Your task to perform on an android device: Show me productivity apps on the Play Store Image 0: 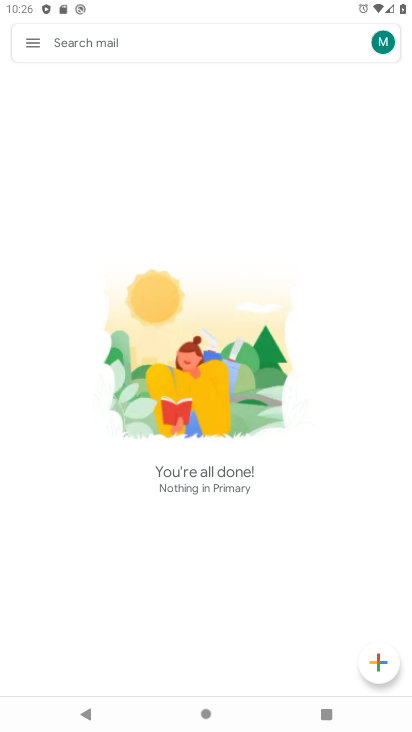
Step 0: press home button
Your task to perform on an android device: Show me productivity apps on the Play Store Image 1: 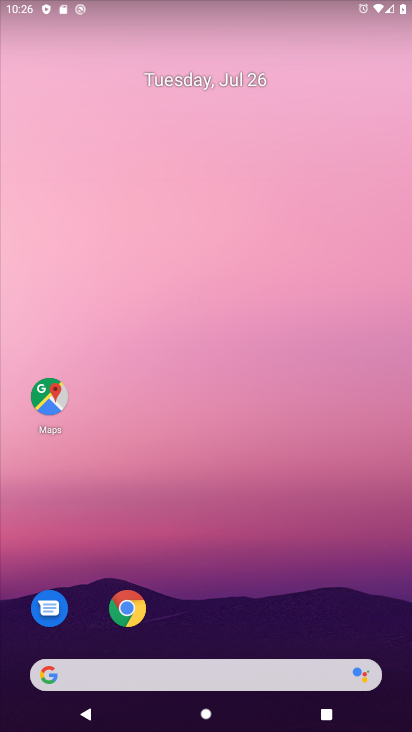
Step 1: drag from (242, 727) to (279, 125)
Your task to perform on an android device: Show me productivity apps on the Play Store Image 2: 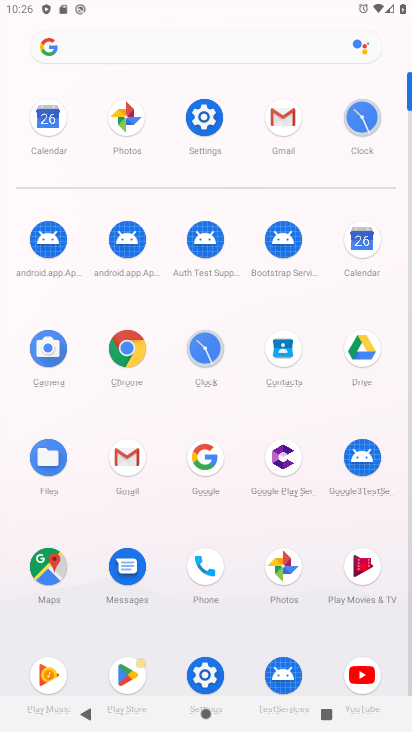
Step 2: click (125, 666)
Your task to perform on an android device: Show me productivity apps on the Play Store Image 3: 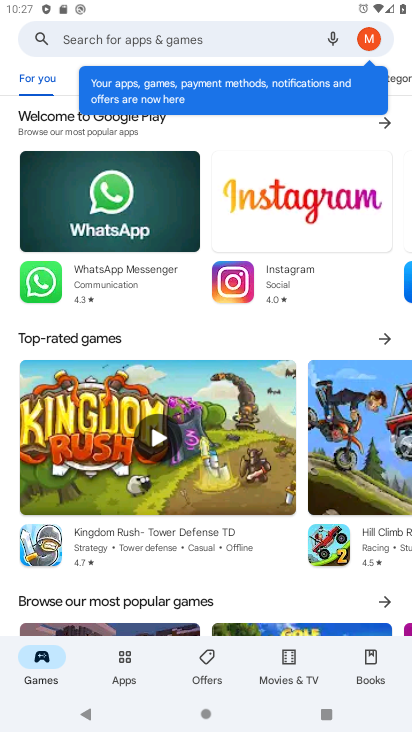
Step 3: click (117, 668)
Your task to perform on an android device: Show me productivity apps on the Play Store Image 4: 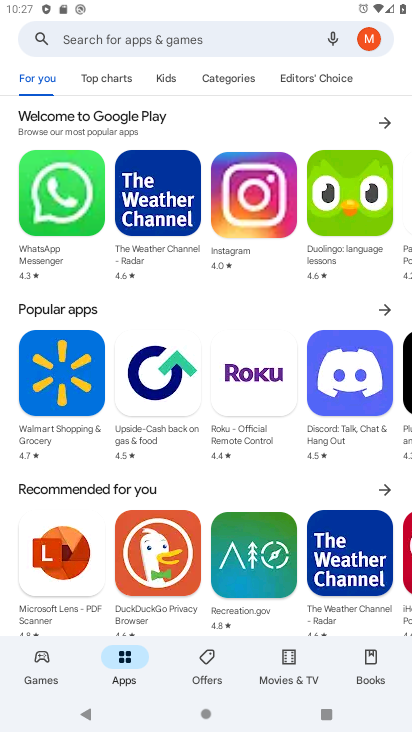
Step 4: click (128, 654)
Your task to perform on an android device: Show me productivity apps on the Play Store Image 5: 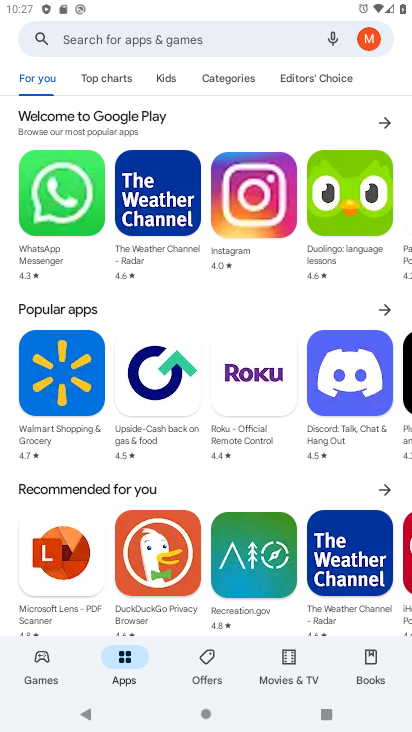
Step 5: click (230, 74)
Your task to perform on an android device: Show me productivity apps on the Play Store Image 6: 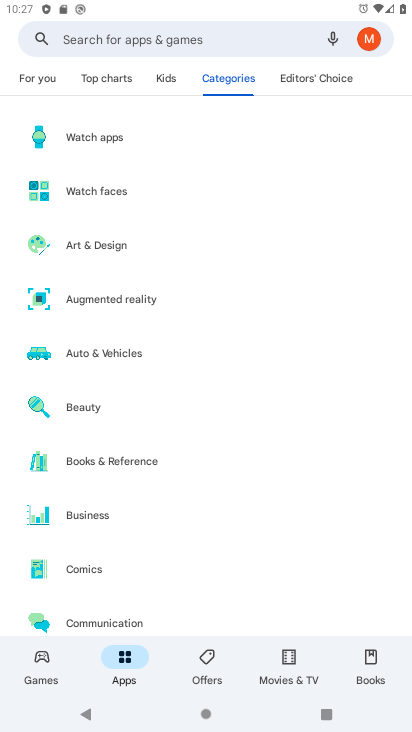
Step 6: drag from (152, 600) to (149, 260)
Your task to perform on an android device: Show me productivity apps on the Play Store Image 7: 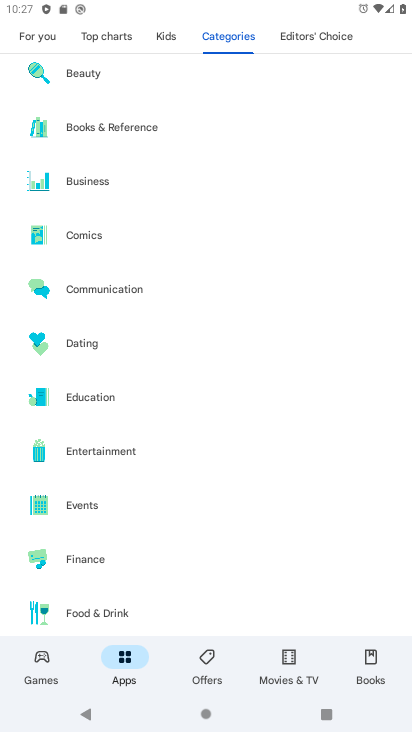
Step 7: drag from (100, 592) to (98, 253)
Your task to perform on an android device: Show me productivity apps on the Play Store Image 8: 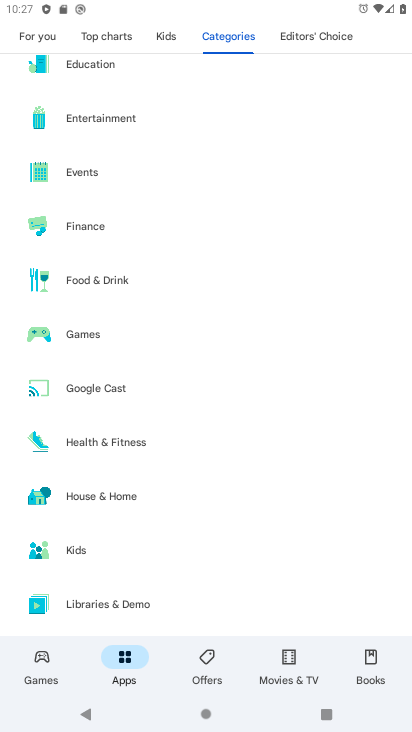
Step 8: drag from (125, 582) to (116, 198)
Your task to perform on an android device: Show me productivity apps on the Play Store Image 9: 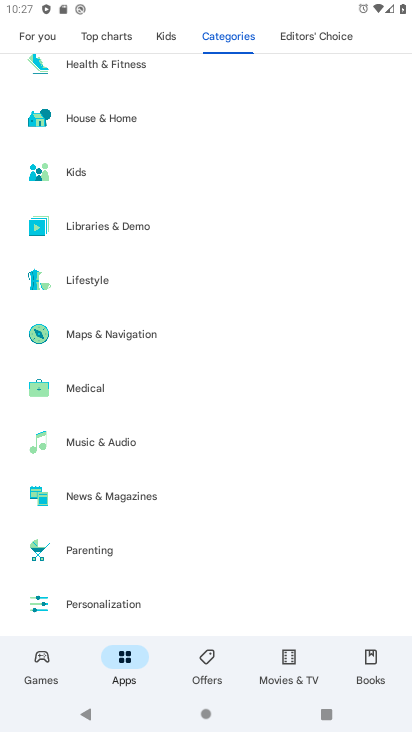
Step 9: drag from (116, 601) to (116, 244)
Your task to perform on an android device: Show me productivity apps on the Play Store Image 10: 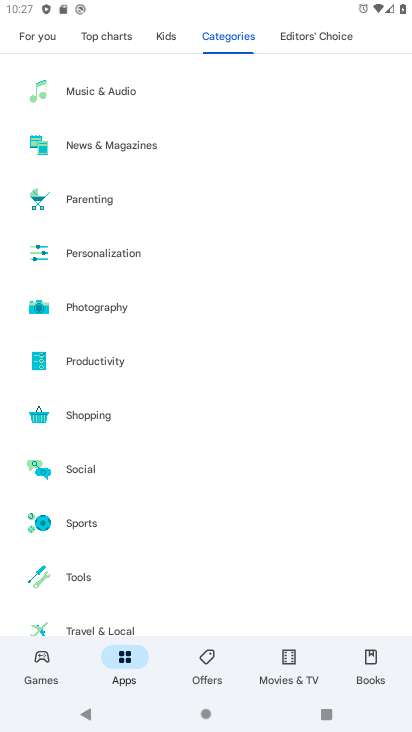
Step 10: click (87, 362)
Your task to perform on an android device: Show me productivity apps on the Play Store Image 11: 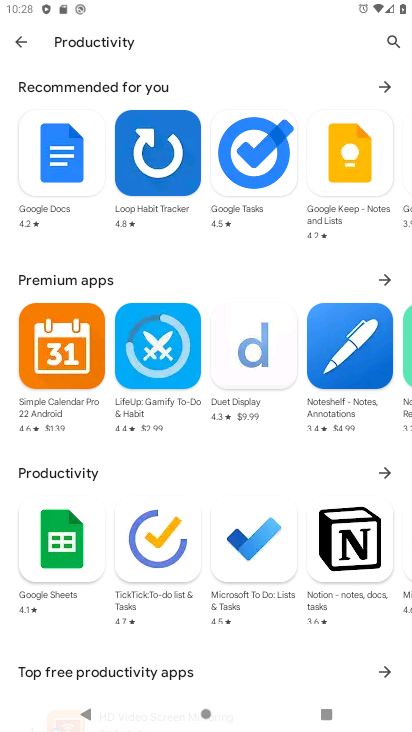
Step 11: task complete